Your task to perform on an android device: Open Google Maps and go to "Timeline" Image 0: 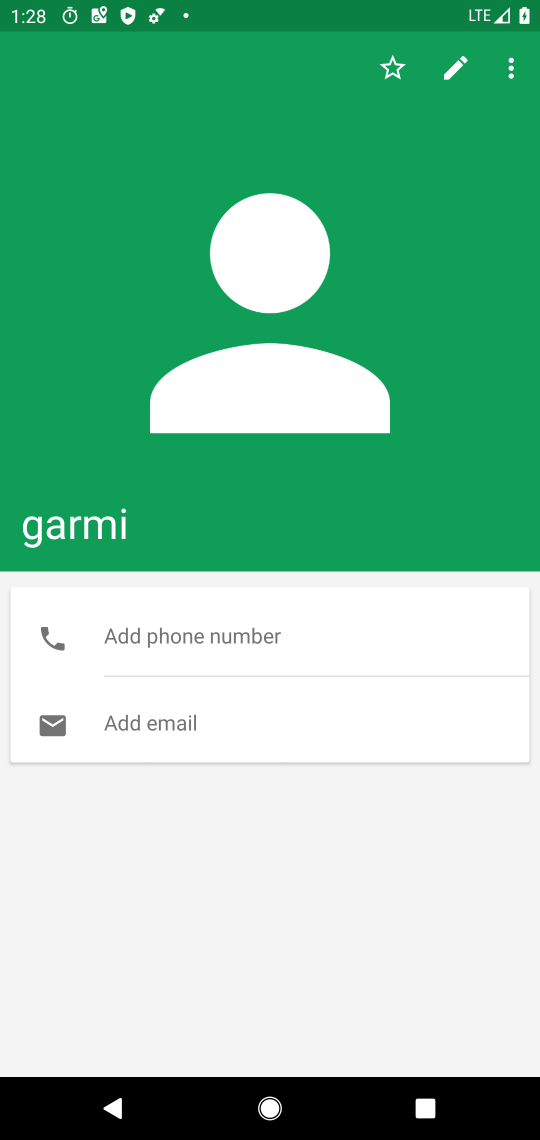
Step 0: press home button
Your task to perform on an android device: Open Google Maps and go to "Timeline" Image 1: 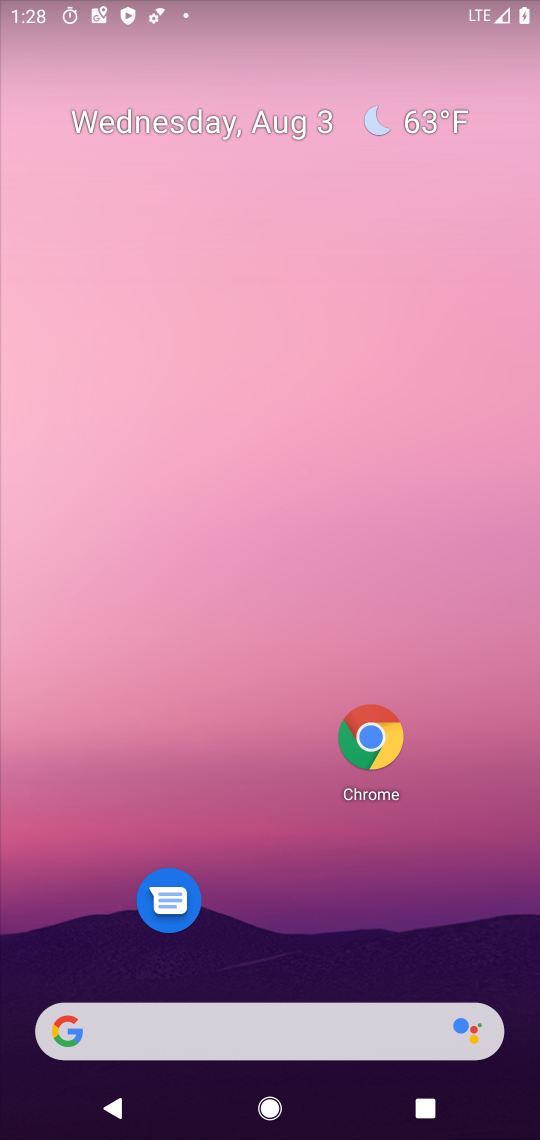
Step 1: drag from (300, 946) to (247, 199)
Your task to perform on an android device: Open Google Maps and go to "Timeline" Image 2: 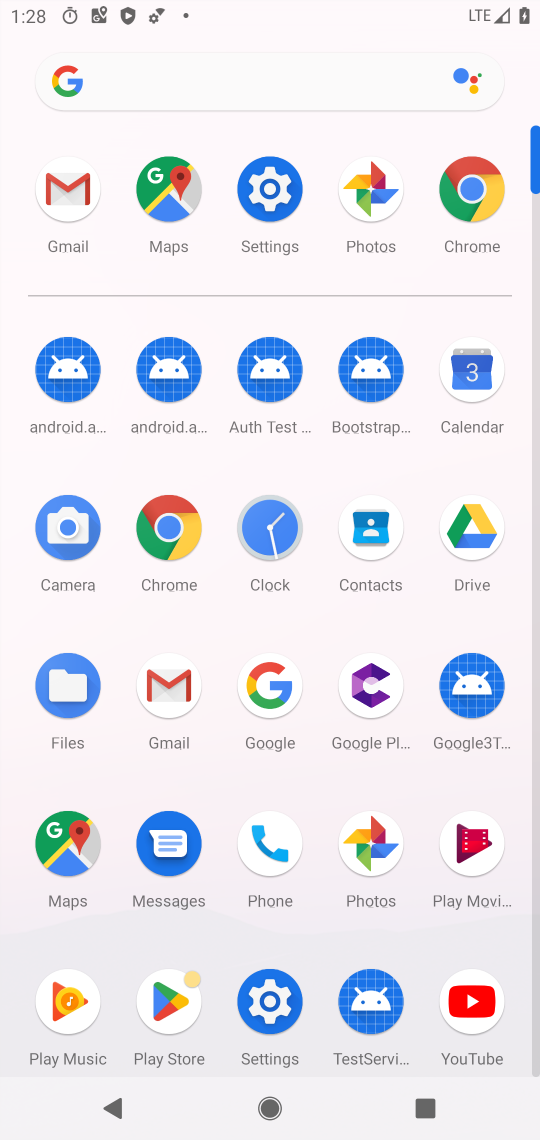
Step 2: click (74, 843)
Your task to perform on an android device: Open Google Maps and go to "Timeline" Image 3: 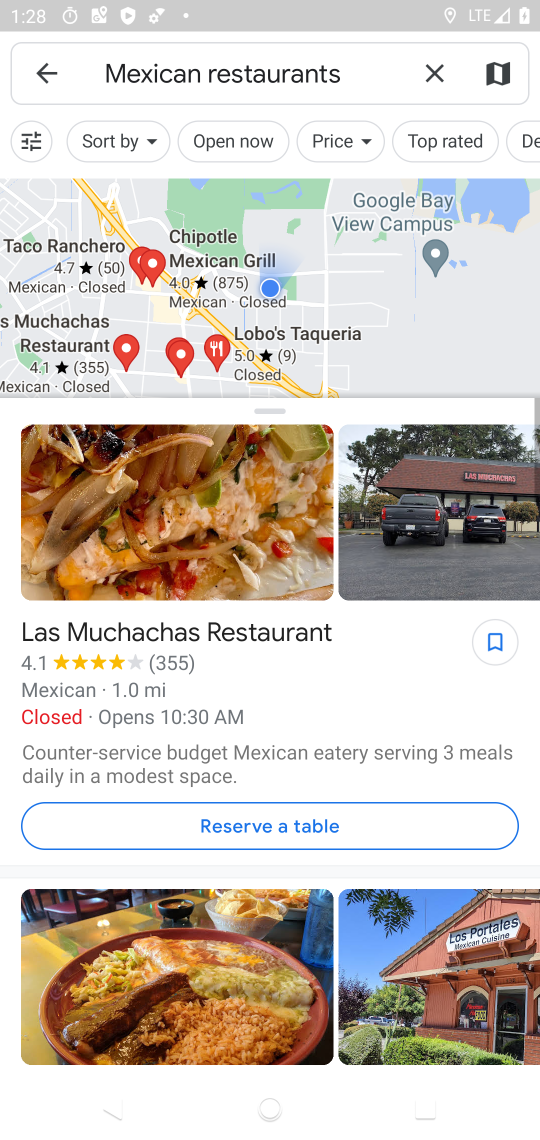
Step 3: click (61, 54)
Your task to perform on an android device: Open Google Maps and go to "Timeline" Image 4: 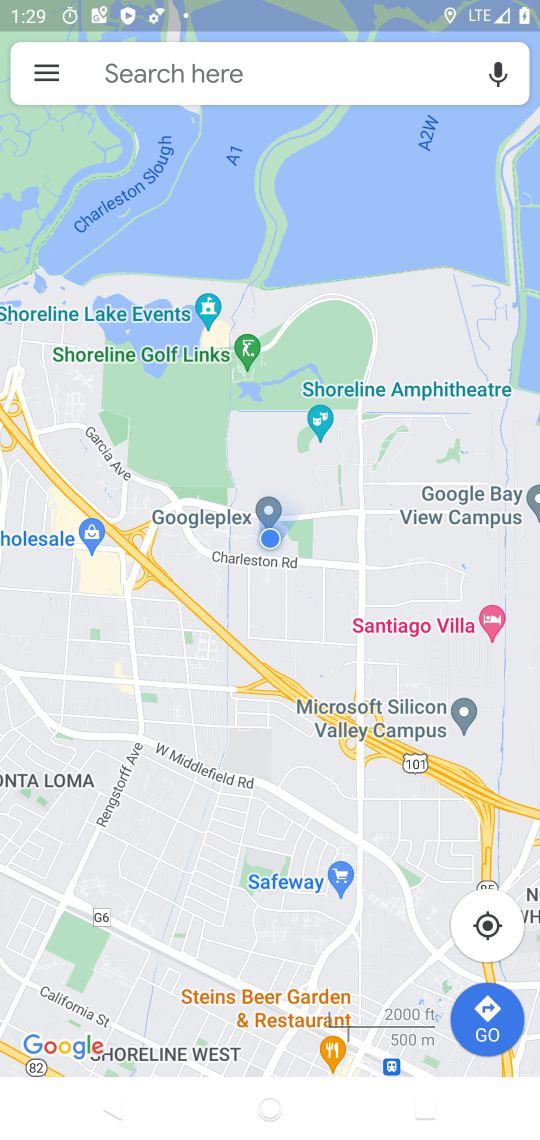
Step 4: click (28, 59)
Your task to perform on an android device: Open Google Maps and go to "Timeline" Image 5: 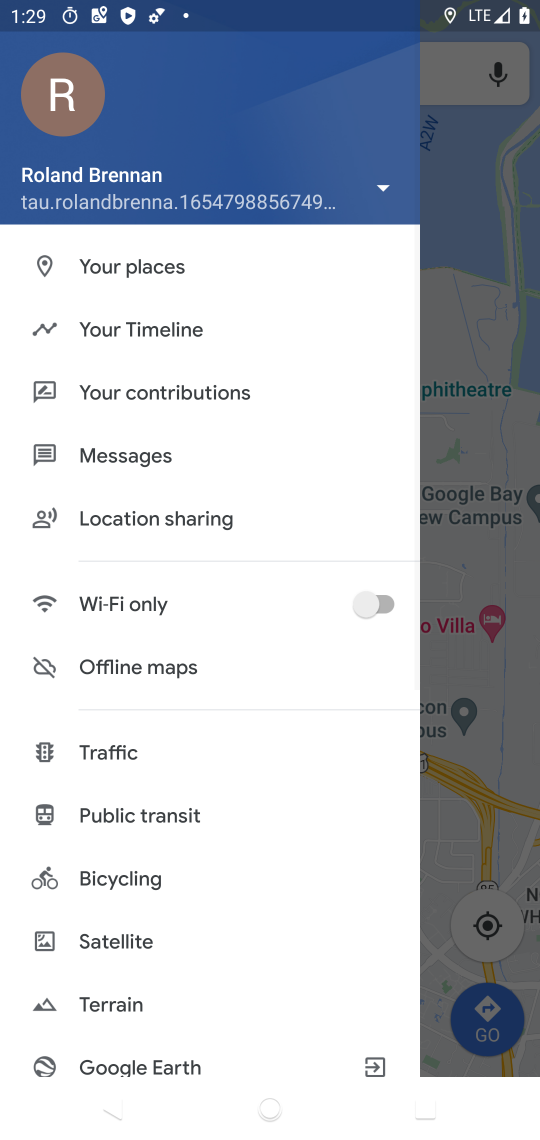
Step 5: click (157, 308)
Your task to perform on an android device: Open Google Maps and go to "Timeline" Image 6: 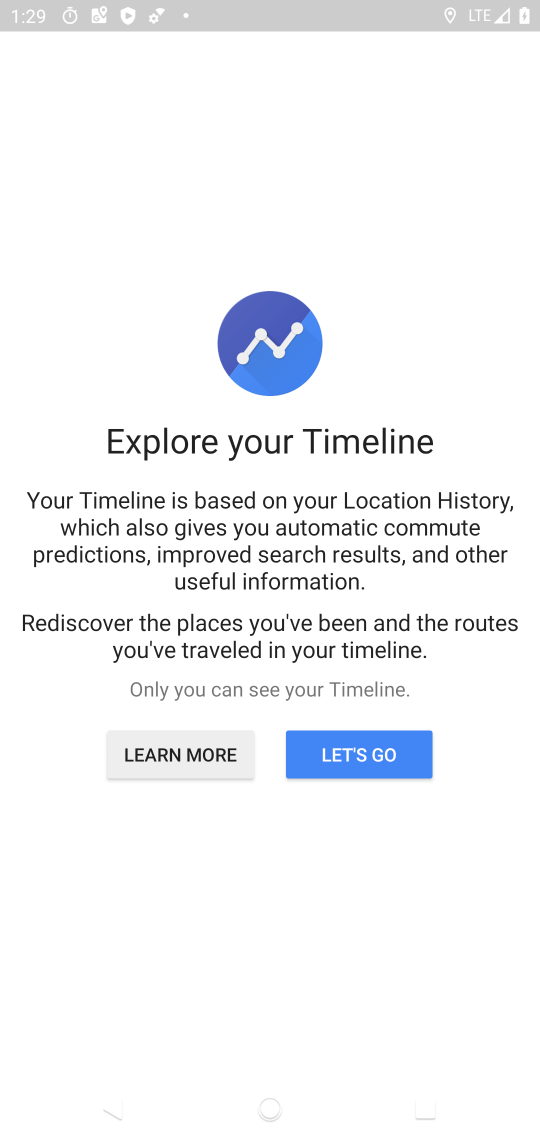
Step 6: click (360, 751)
Your task to perform on an android device: Open Google Maps and go to "Timeline" Image 7: 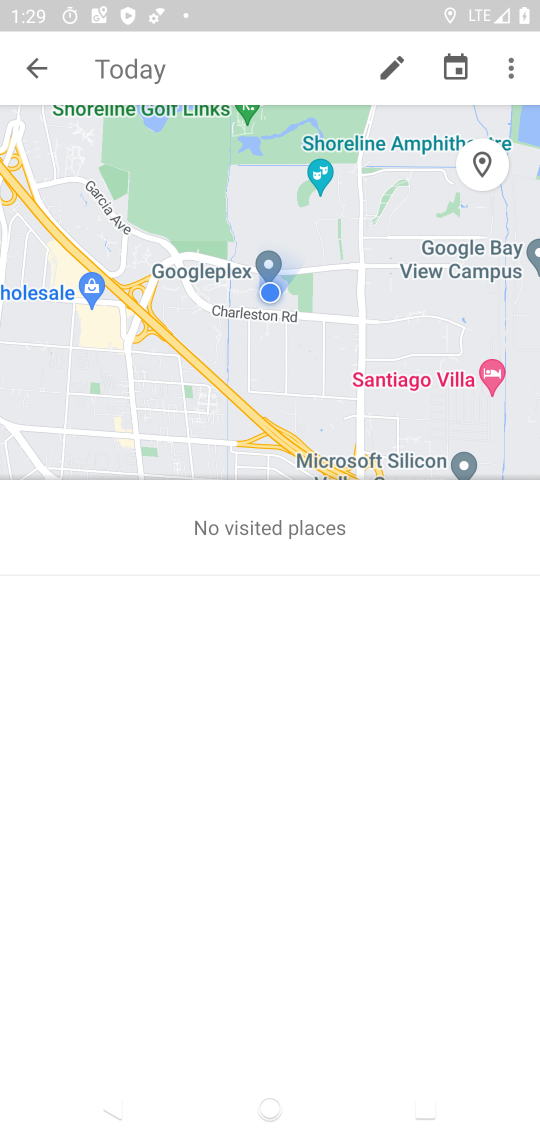
Step 7: task complete